Your task to perform on an android device: Open the Play Movies app and select the watchlist tab. Image 0: 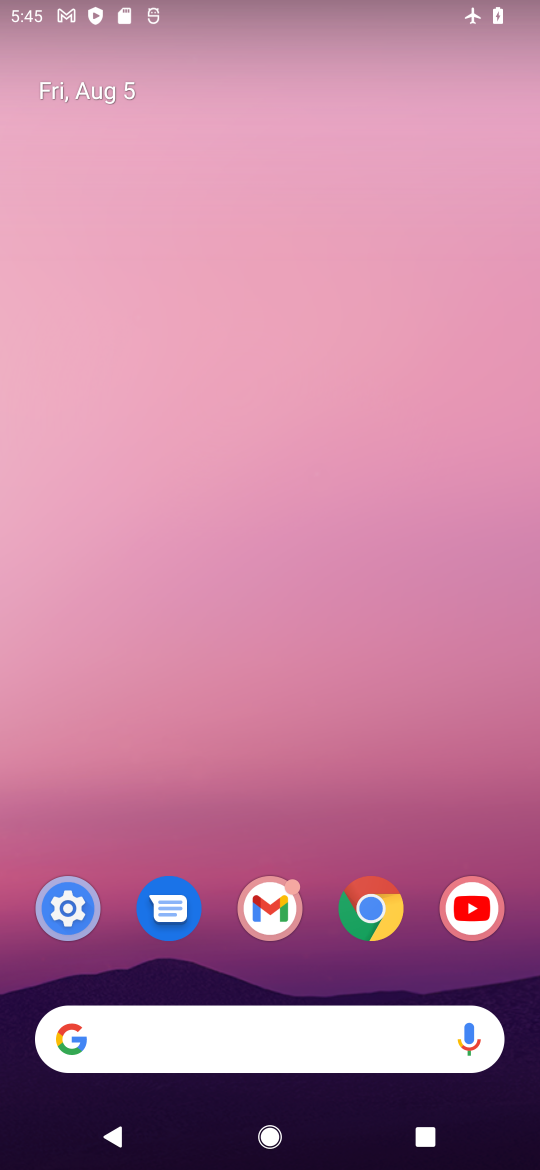
Step 0: drag from (223, 974) to (235, 371)
Your task to perform on an android device: Open the Play Movies app and select the watchlist tab. Image 1: 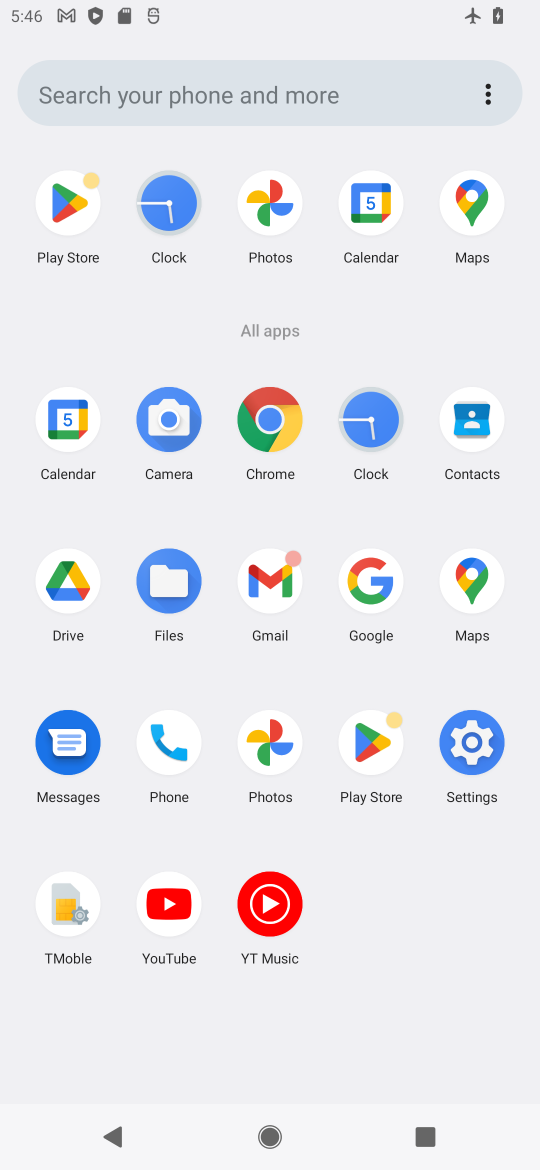
Step 1: task complete